Your task to perform on an android device: Open the stopwatch Image 0: 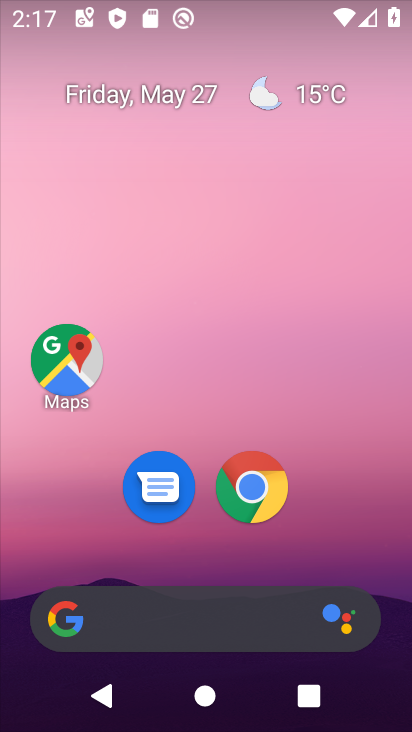
Step 0: drag from (212, 552) to (360, 32)
Your task to perform on an android device: Open the stopwatch Image 1: 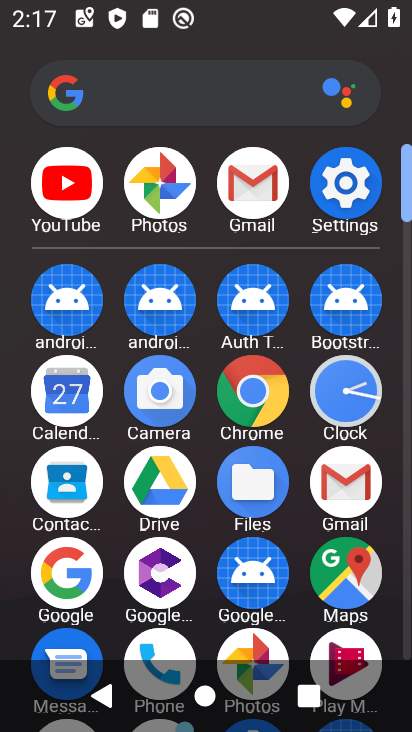
Step 1: click (354, 390)
Your task to perform on an android device: Open the stopwatch Image 2: 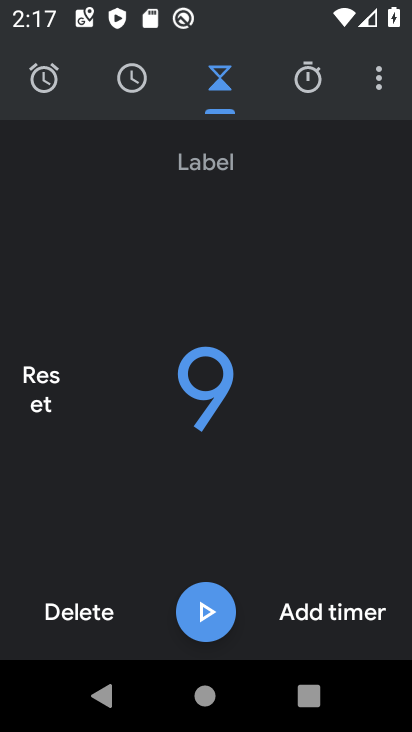
Step 2: click (310, 76)
Your task to perform on an android device: Open the stopwatch Image 3: 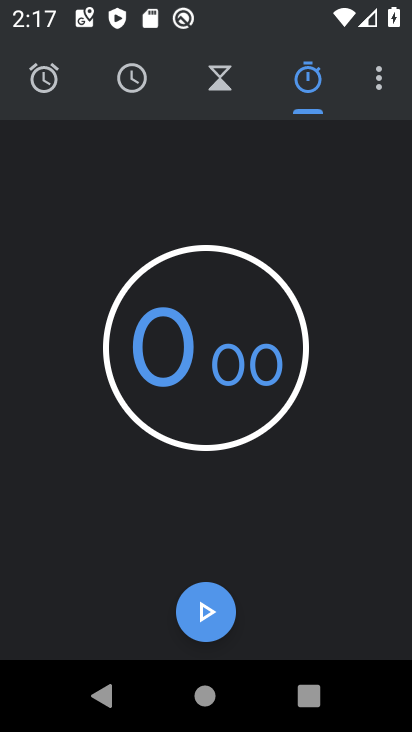
Step 3: task complete